Your task to perform on an android device: Show me the best 1080p monitor on Target.com Image 0: 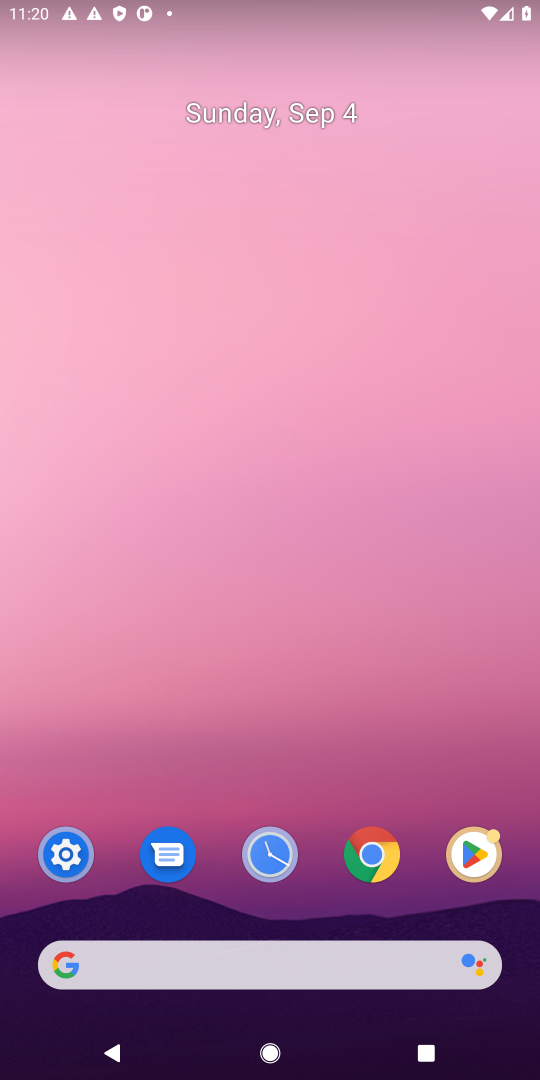
Step 0: press home button
Your task to perform on an android device: Show me the best 1080p monitor on Target.com Image 1: 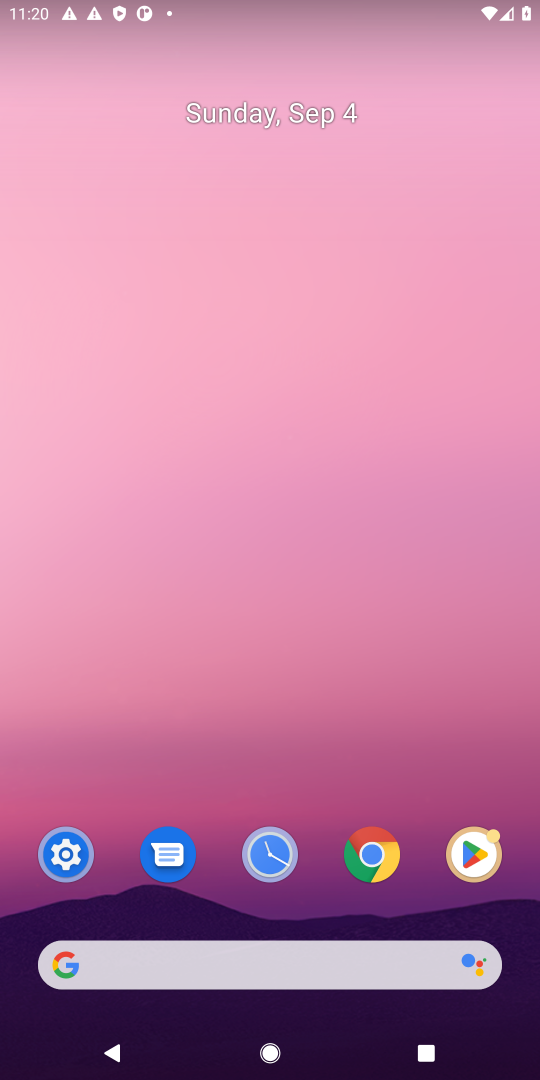
Step 1: click (390, 958)
Your task to perform on an android device: Show me the best 1080p monitor on Target.com Image 2: 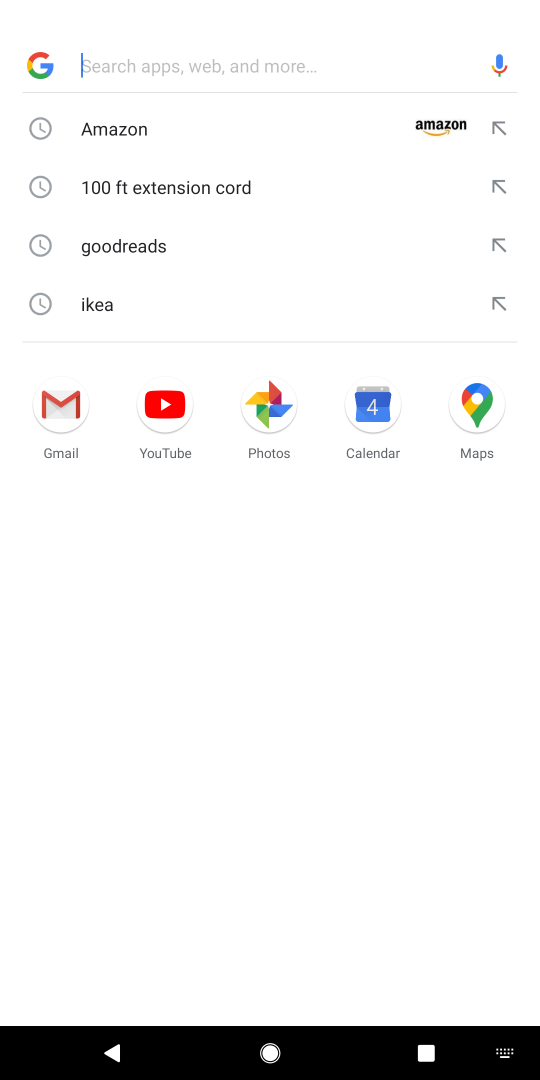
Step 2: press enter
Your task to perform on an android device: Show me the best 1080p monitor on Target.com Image 3: 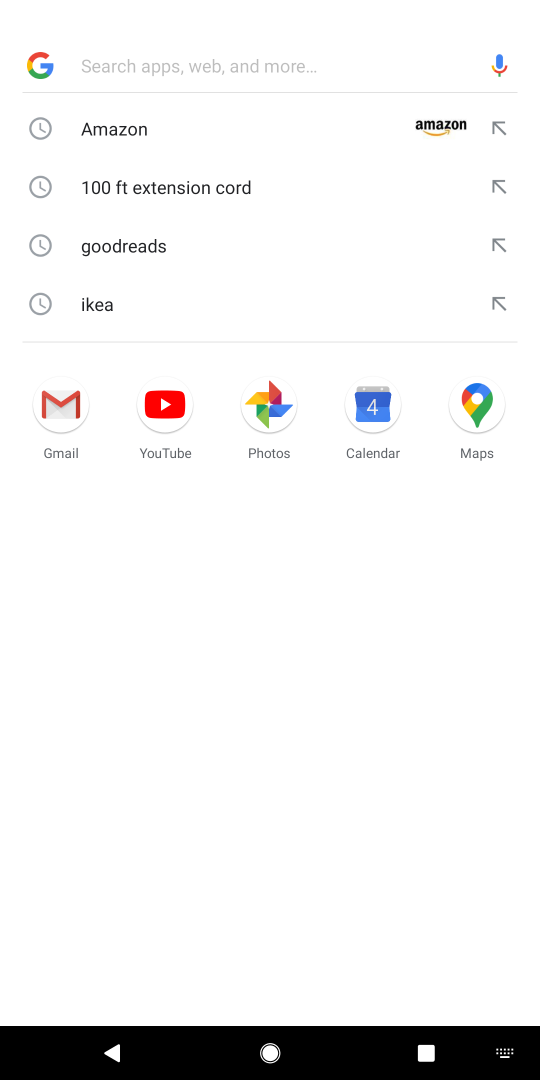
Step 3: type "target.com"
Your task to perform on an android device: Show me the best 1080p monitor on Target.com Image 4: 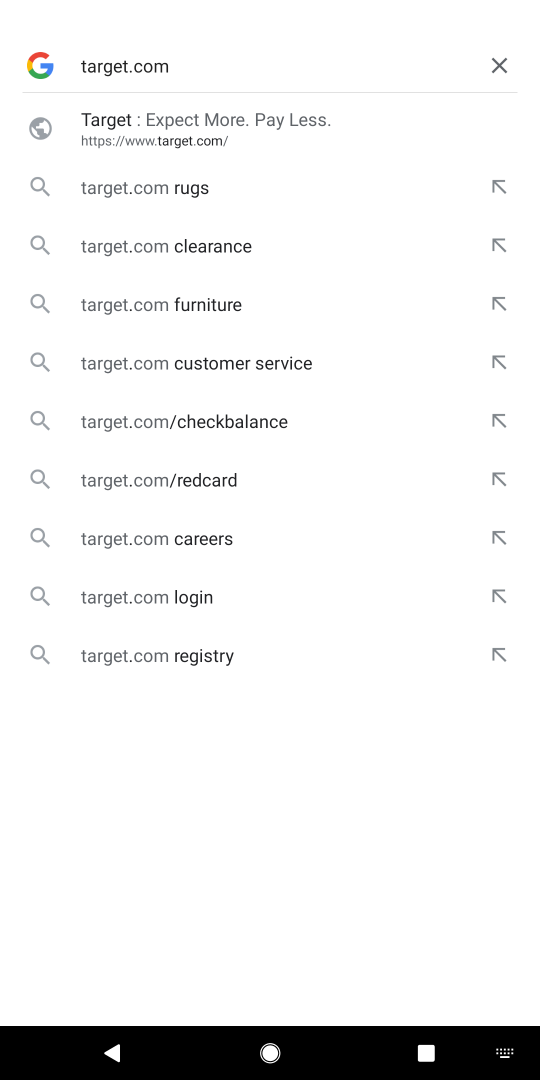
Step 4: click (205, 129)
Your task to perform on an android device: Show me the best 1080p monitor on Target.com Image 5: 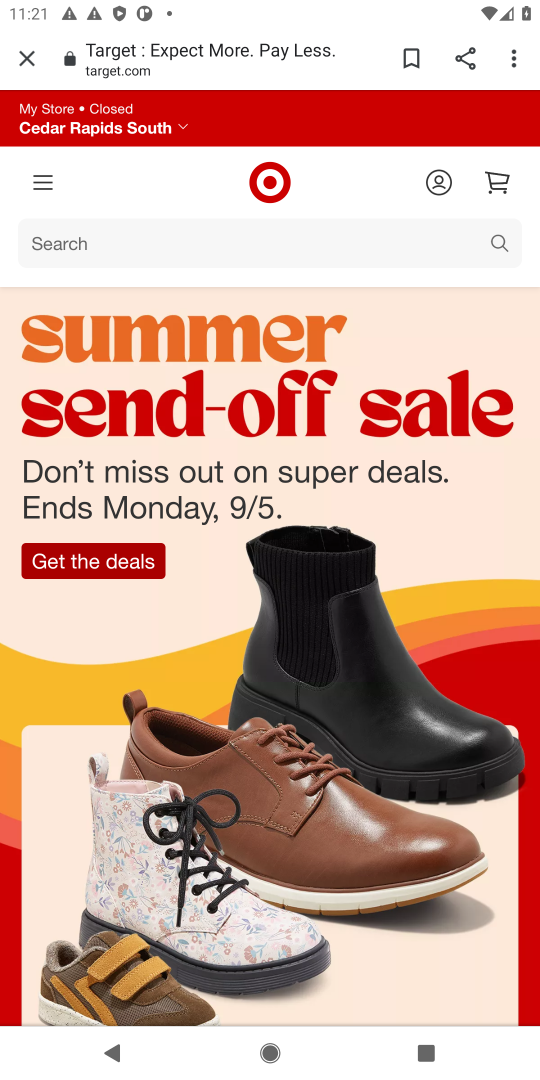
Step 5: click (154, 240)
Your task to perform on an android device: Show me the best 1080p monitor on Target.com Image 6: 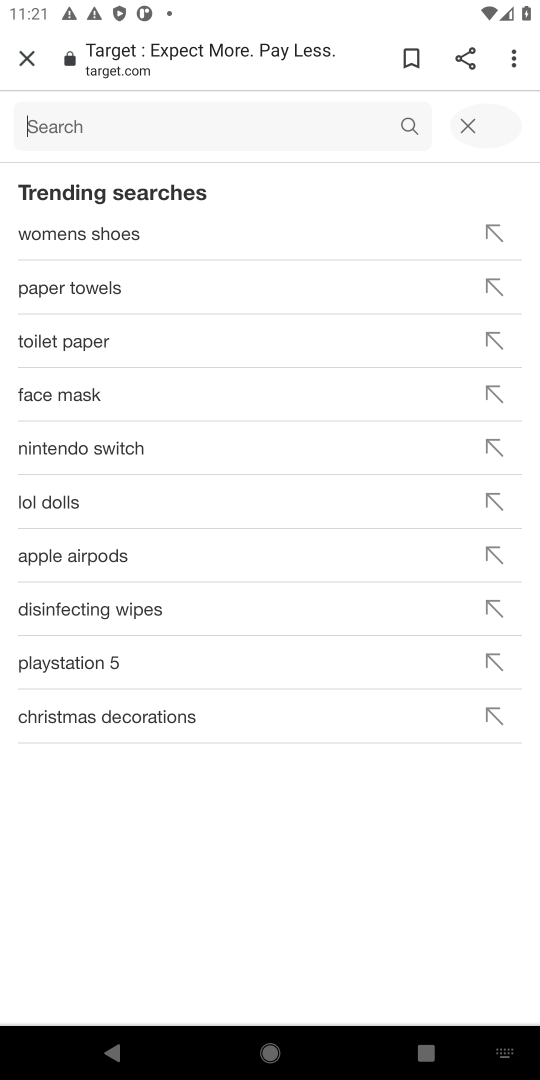
Step 6: press enter
Your task to perform on an android device: Show me the best 1080p monitor on Target.com Image 7: 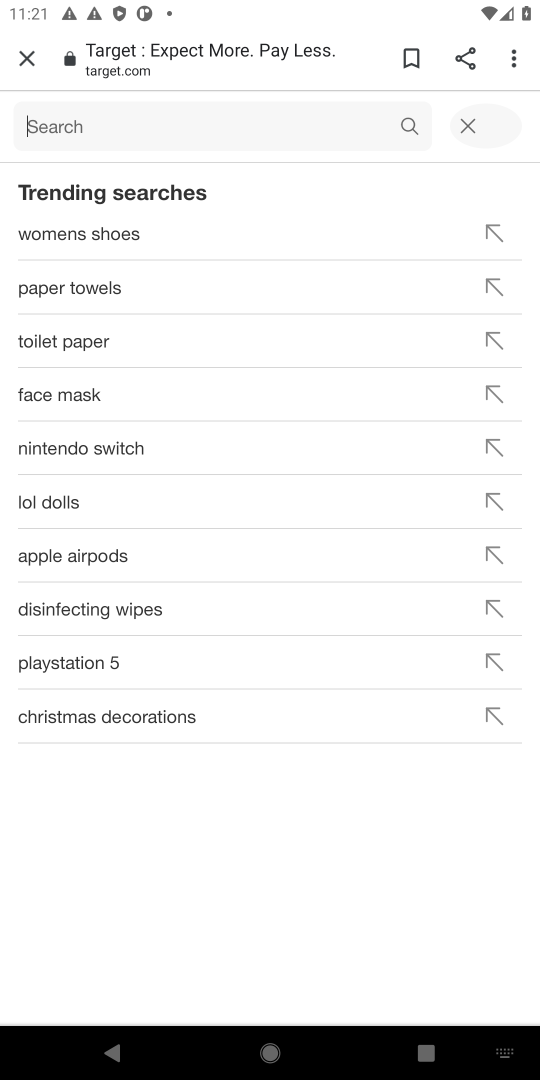
Step 7: type "best 1080p monitor"
Your task to perform on an android device: Show me the best 1080p monitor on Target.com Image 8: 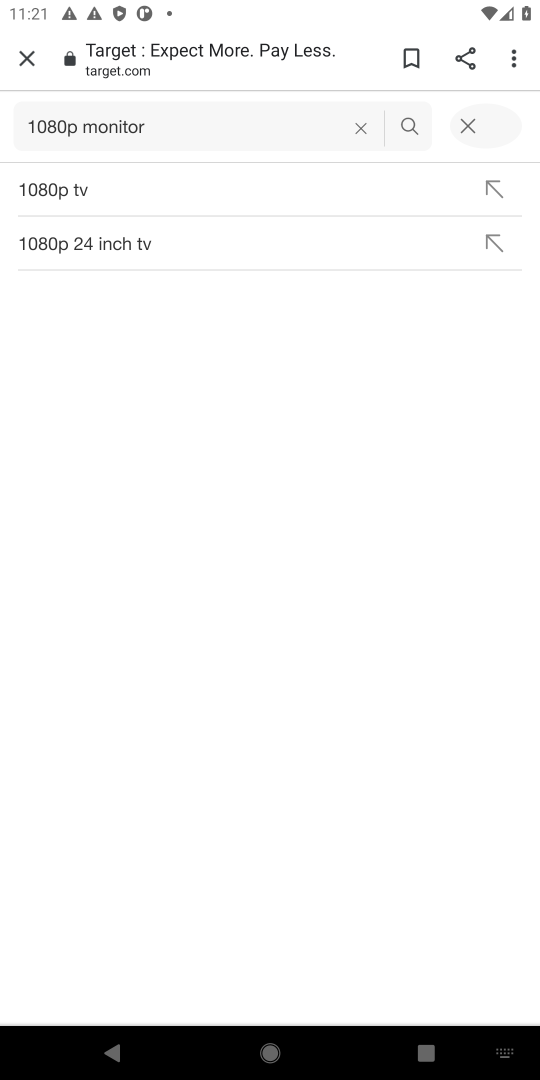
Step 8: click (404, 117)
Your task to perform on an android device: Show me the best 1080p monitor on Target.com Image 9: 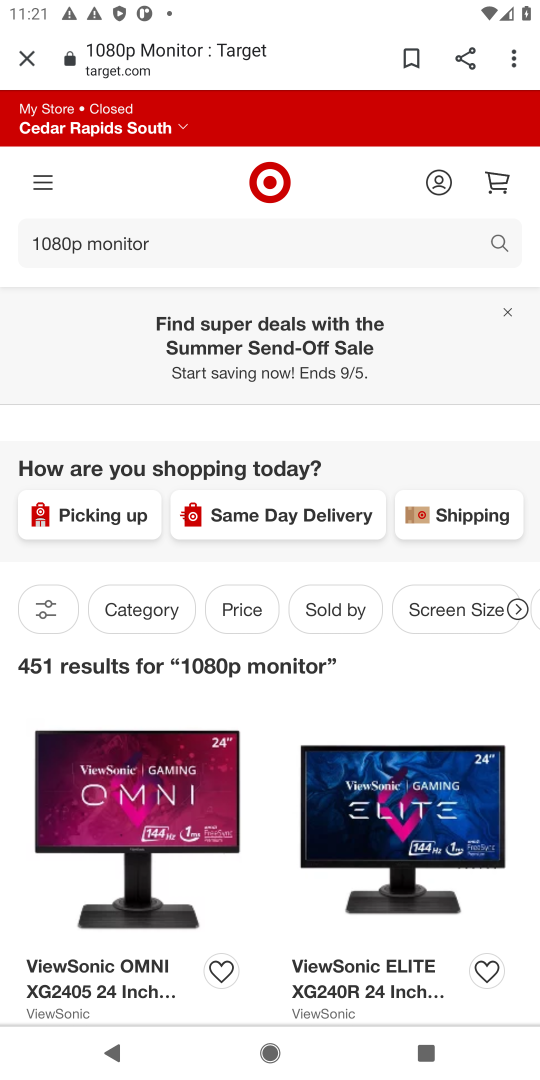
Step 9: task complete